Your task to perform on an android device: When is my next appointment? Image 0: 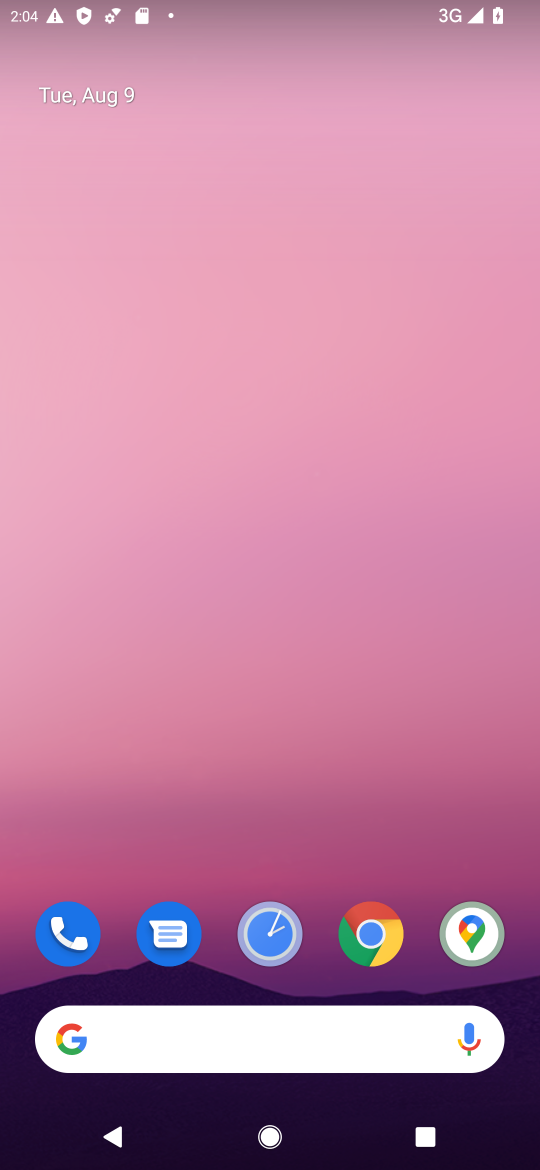
Step 0: drag from (321, 970) to (305, 83)
Your task to perform on an android device: When is my next appointment? Image 1: 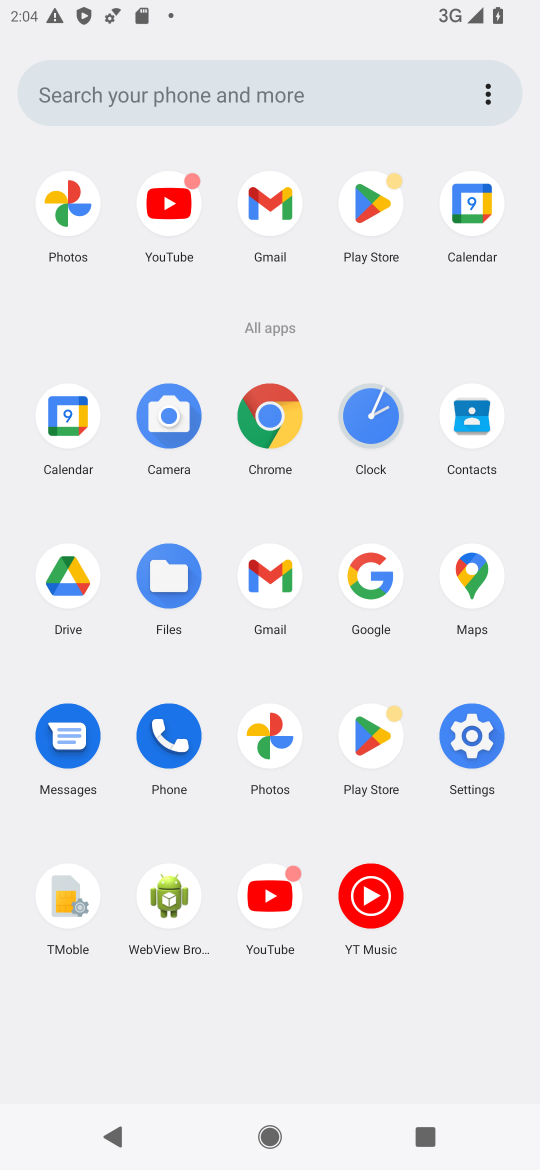
Step 1: click (478, 742)
Your task to perform on an android device: When is my next appointment? Image 2: 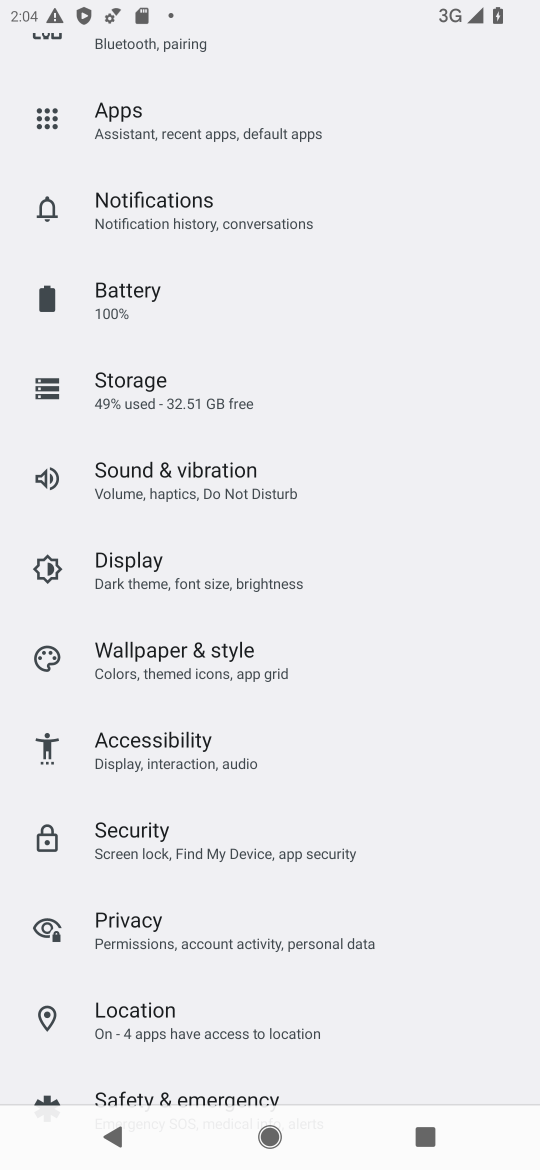
Step 2: press home button
Your task to perform on an android device: When is my next appointment? Image 3: 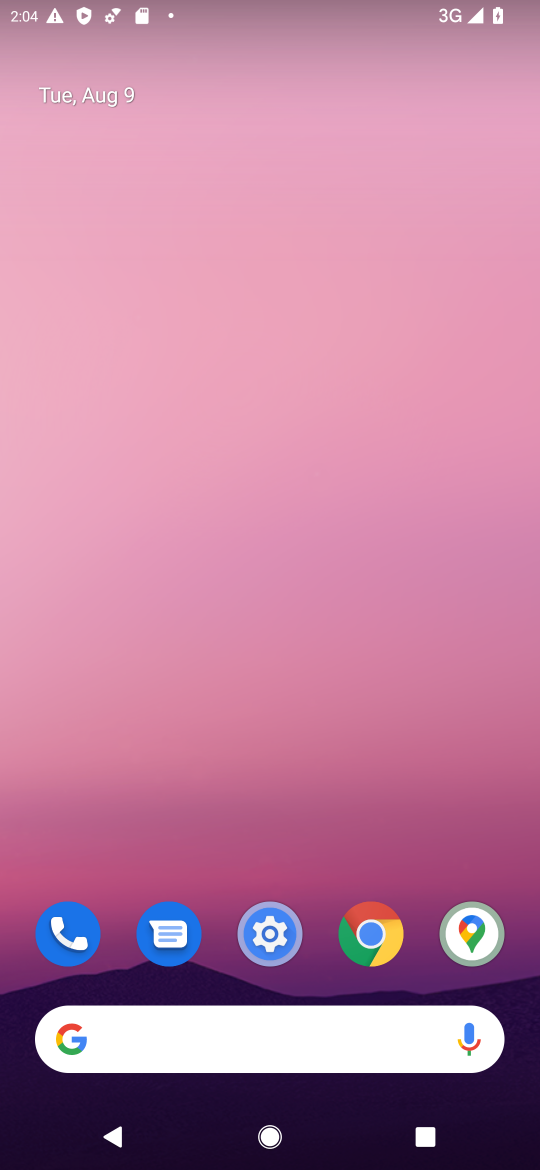
Step 3: drag from (334, 981) to (322, 36)
Your task to perform on an android device: When is my next appointment? Image 4: 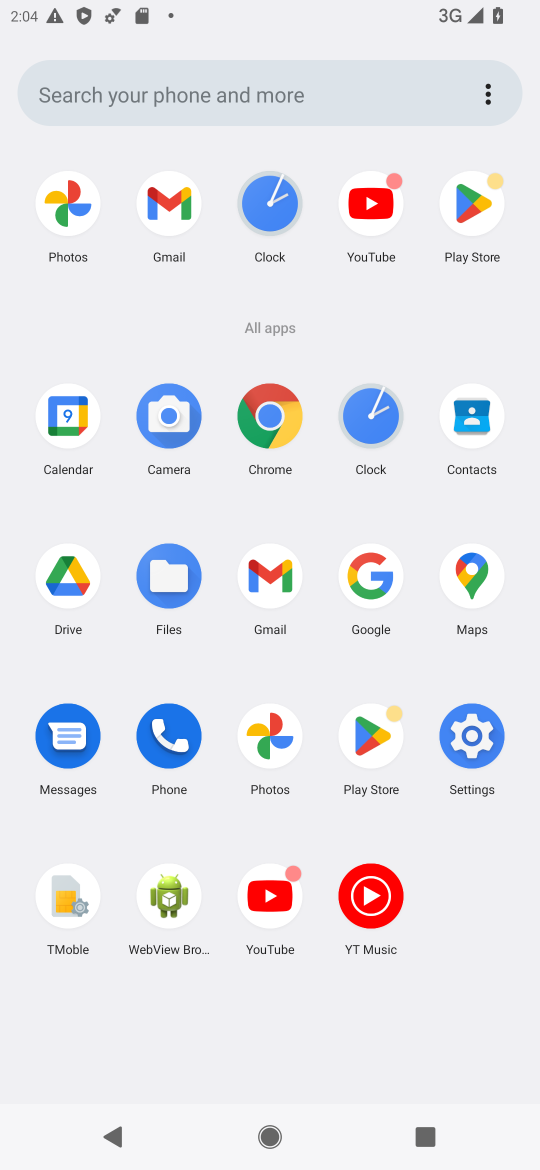
Step 4: click (447, 433)
Your task to perform on an android device: When is my next appointment? Image 5: 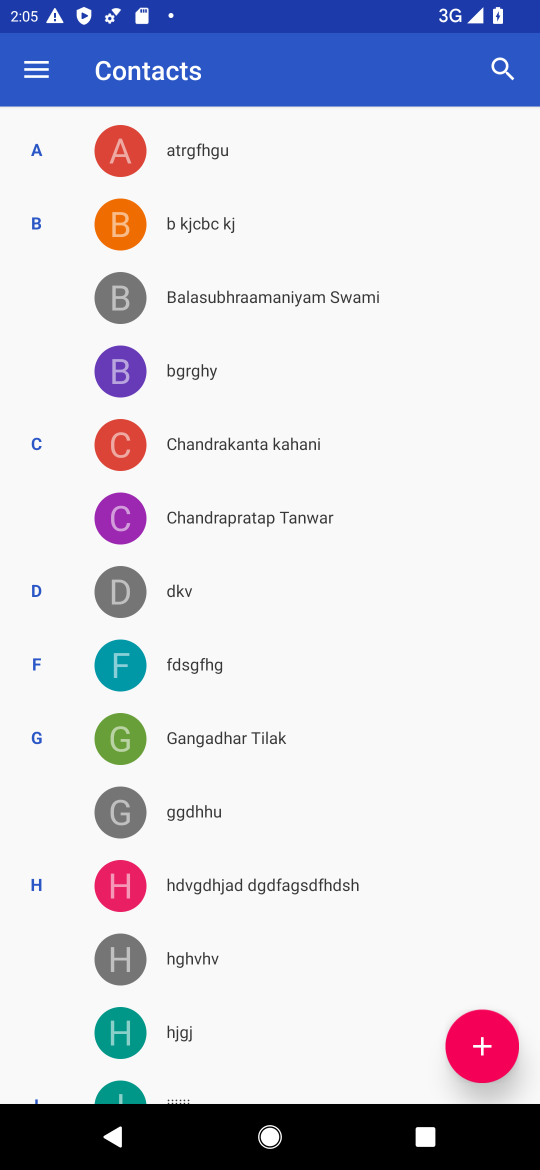
Step 5: task complete